Your task to perform on an android device: Turn off the flashlight Image 0: 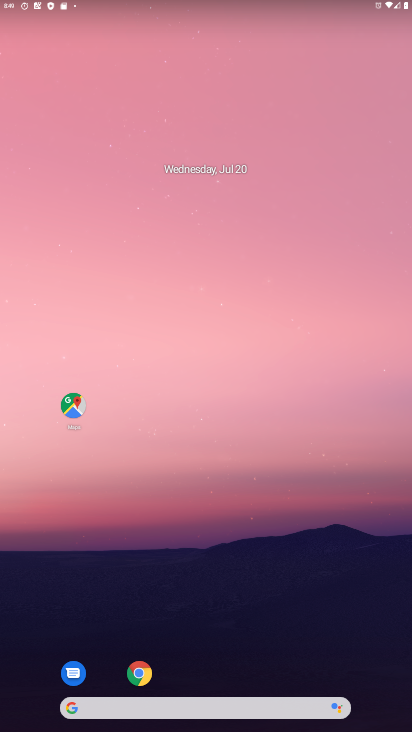
Step 0: drag from (222, 678) to (207, 105)
Your task to perform on an android device: Turn off the flashlight Image 1: 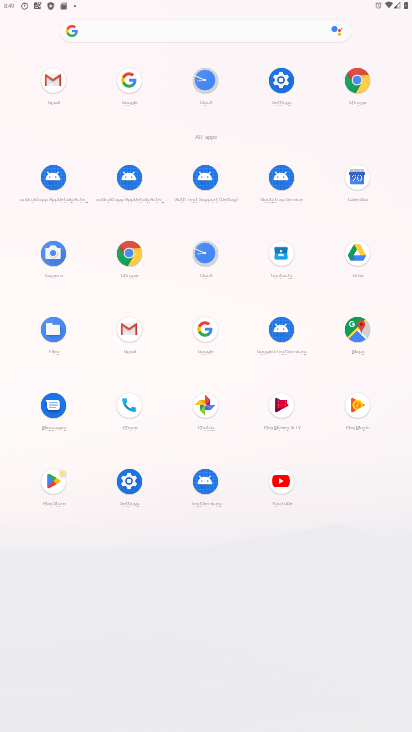
Step 1: click (277, 78)
Your task to perform on an android device: Turn off the flashlight Image 2: 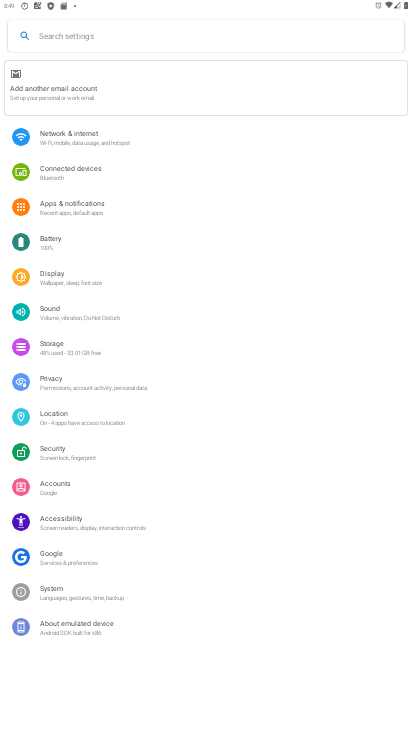
Step 2: click (157, 44)
Your task to perform on an android device: Turn off the flashlight Image 3: 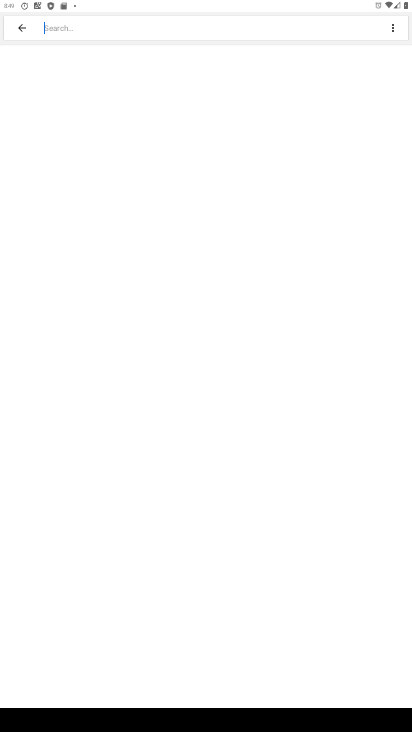
Step 3: type "flashlight"
Your task to perform on an android device: Turn off the flashlight Image 4: 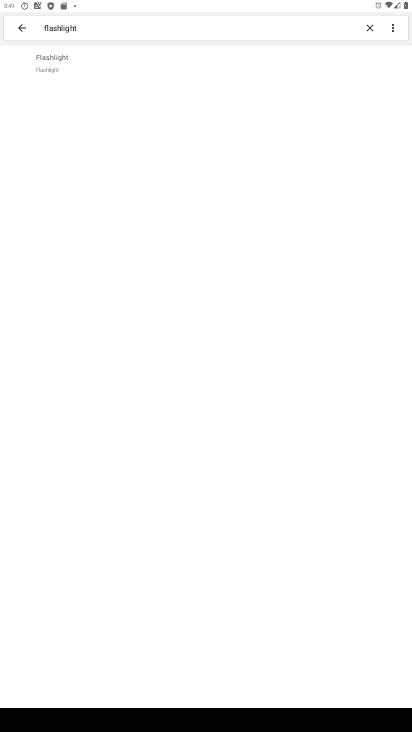
Step 4: task complete